Your task to perform on an android device: Open notification settings Image 0: 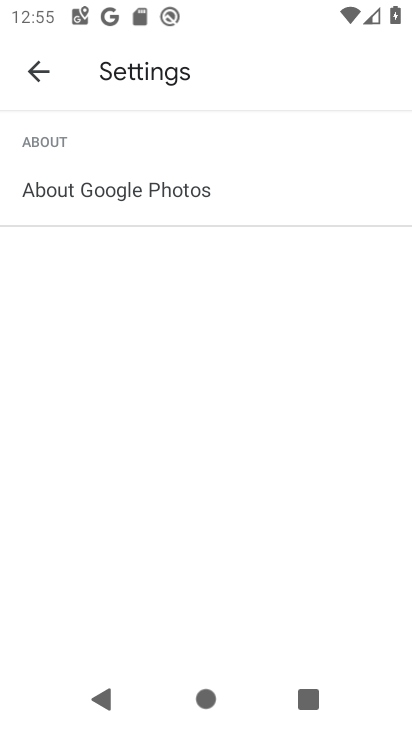
Step 0: press home button
Your task to perform on an android device: Open notification settings Image 1: 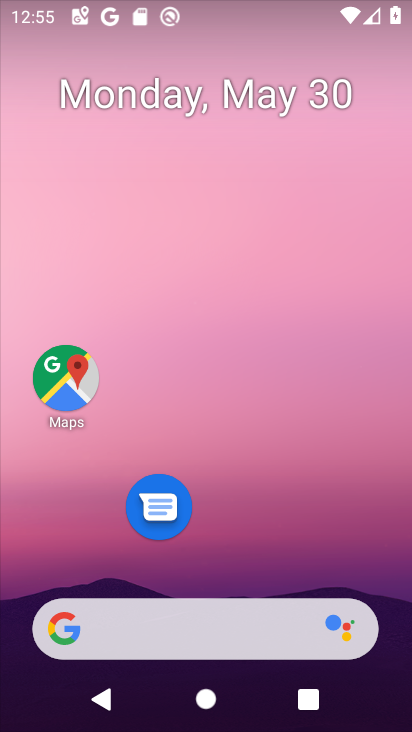
Step 1: drag from (244, 543) to (246, 131)
Your task to perform on an android device: Open notification settings Image 2: 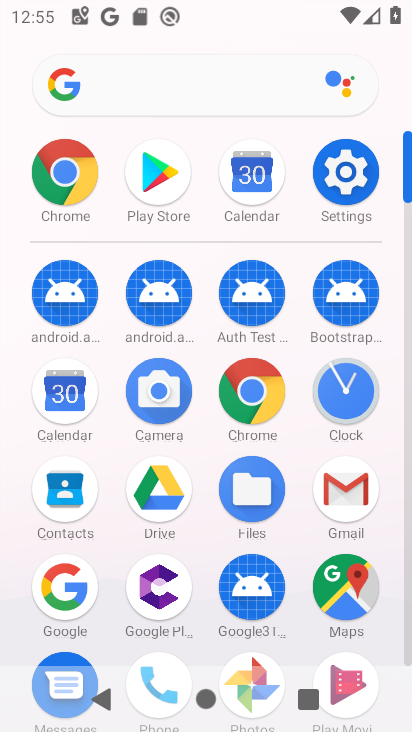
Step 2: click (335, 176)
Your task to perform on an android device: Open notification settings Image 3: 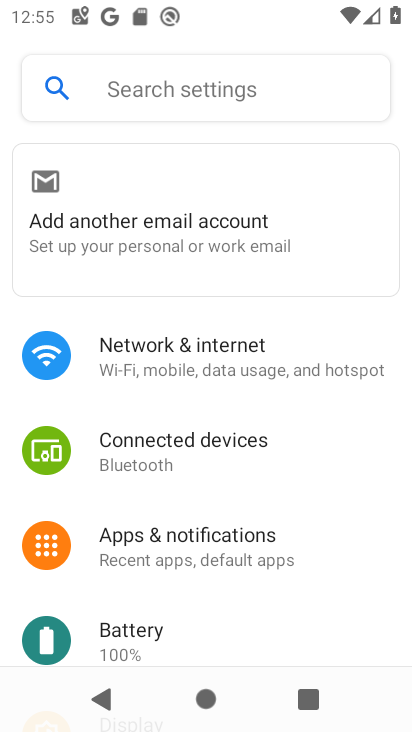
Step 3: drag from (310, 595) to (305, 249)
Your task to perform on an android device: Open notification settings Image 4: 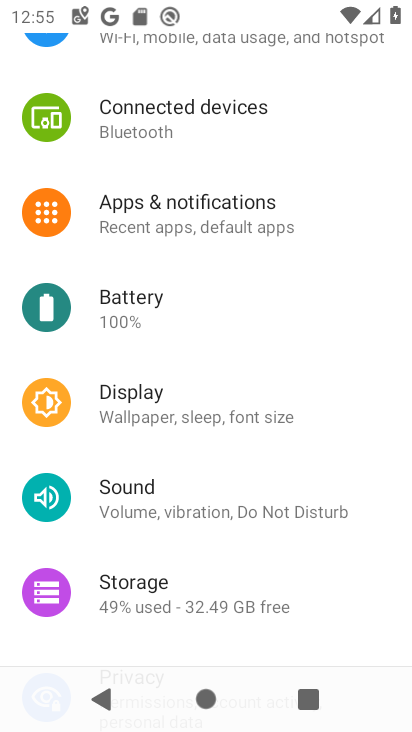
Step 4: click (194, 198)
Your task to perform on an android device: Open notification settings Image 5: 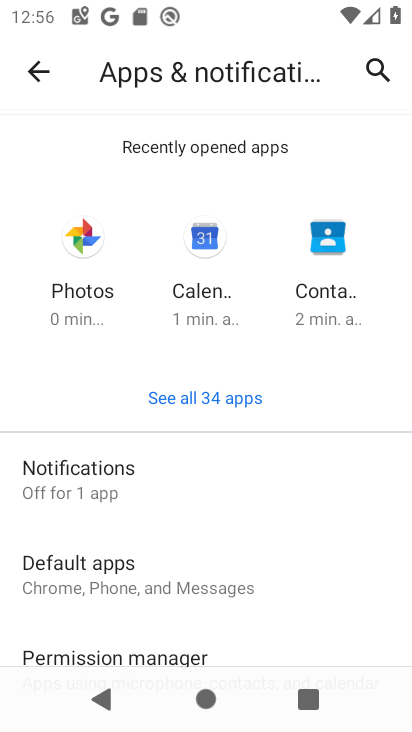
Step 5: drag from (267, 588) to (261, 245)
Your task to perform on an android device: Open notification settings Image 6: 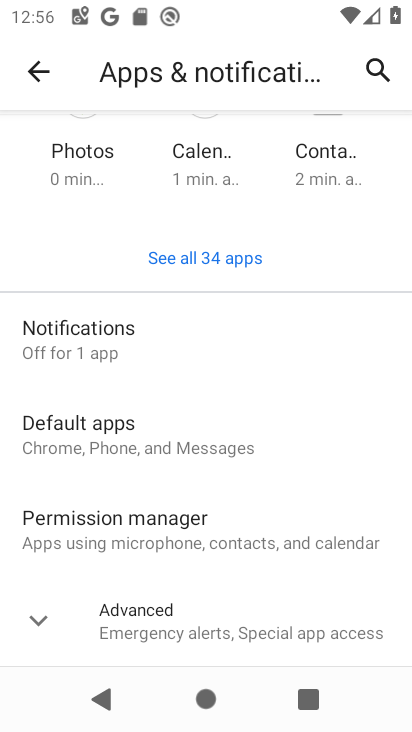
Step 6: click (50, 350)
Your task to perform on an android device: Open notification settings Image 7: 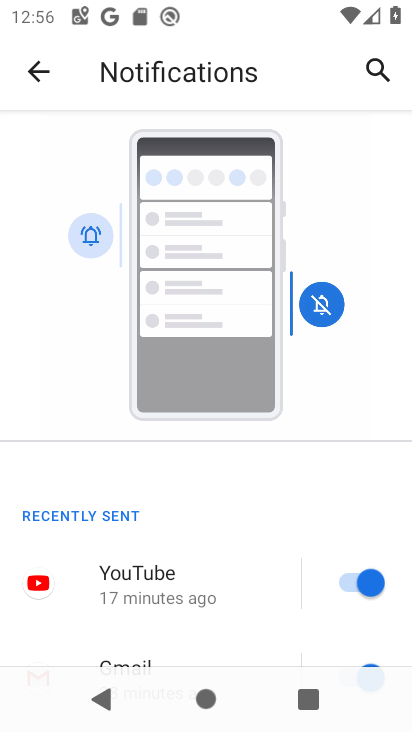
Step 7: task complete